Your task to perform on an android device: Open calendar and show me the fourth week of next month Image 0: 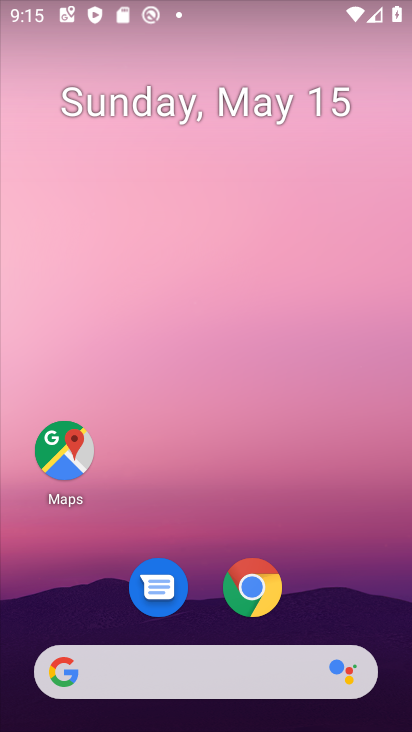
Step 0: drag from (395, 642) to (305, 55)
Your task to perform on an android device: Open calendar and show me the fourth week of next month Image 1: 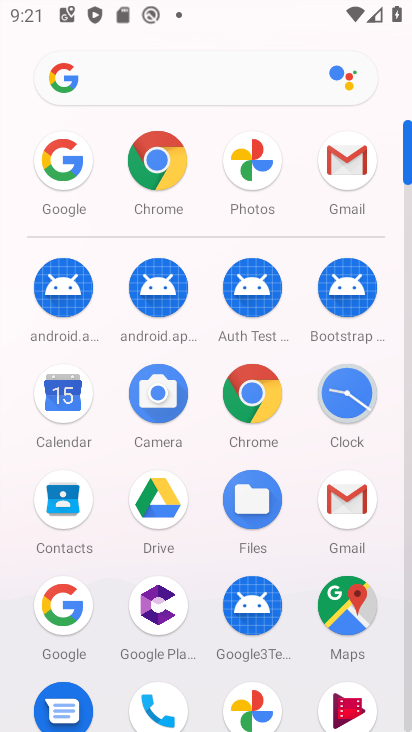
Step 1: click (71, 410)
Your task to perform on an android device: Open calendar and show me the fourth week of next month Image 2: 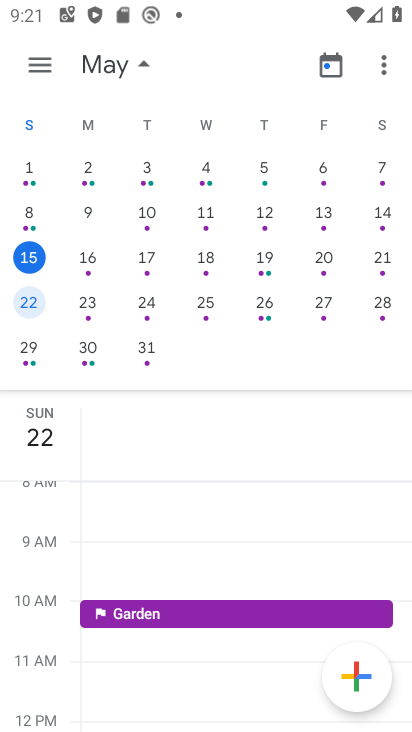
Step 2: drag from (355, 270) to (56, 288)
Your task to perform on an android device: Open calendar and show me the fourth week of next month Image 3: 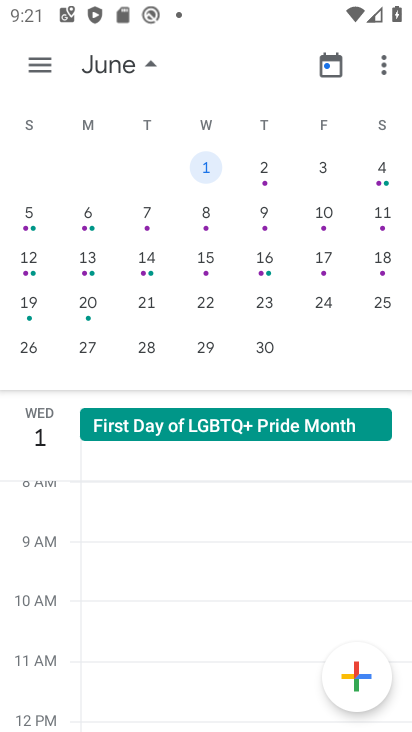
Step 3: click (269, 348)
Your task to perform on an android device: Open calendar and show me the fourth week of next month Image 4: 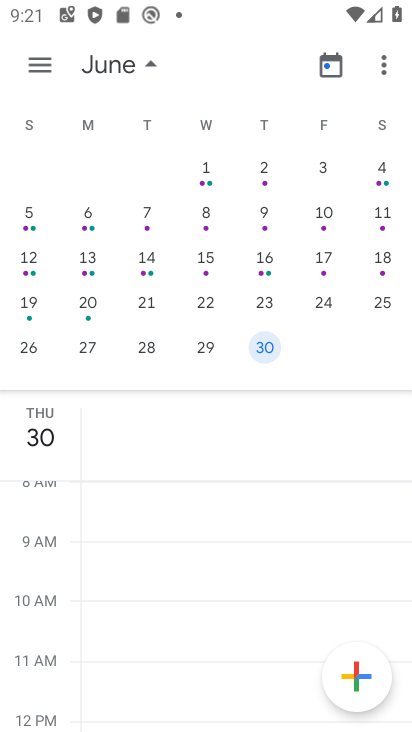
Step 4: task complete